Your task to perform on an android device: Open CNN.com Image 0: 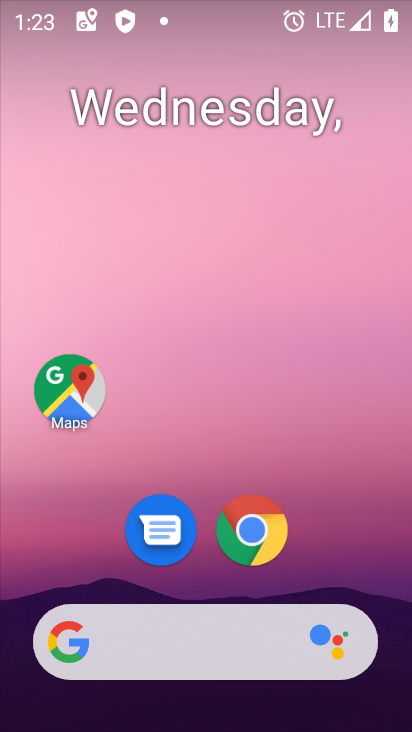
Step 0: drag from (339, 480) to (339, 146)
Your task to perform on an android device: Open CNN.com Image 1: 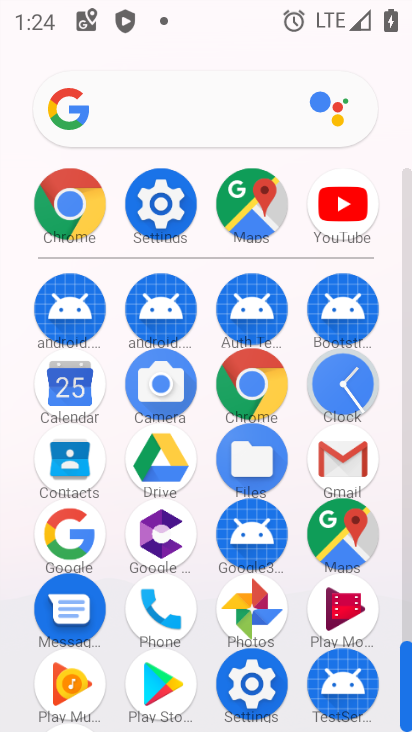
Step 1: click (73, 210)
Your task to perform on an android device: Open CNN.com Image 2: 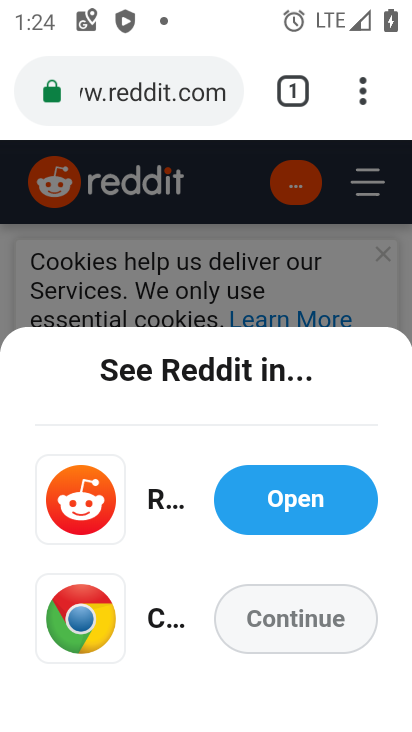
Step 2: click (172, 99)
Your task to perform on an android device: Open CNN.com Image 3: 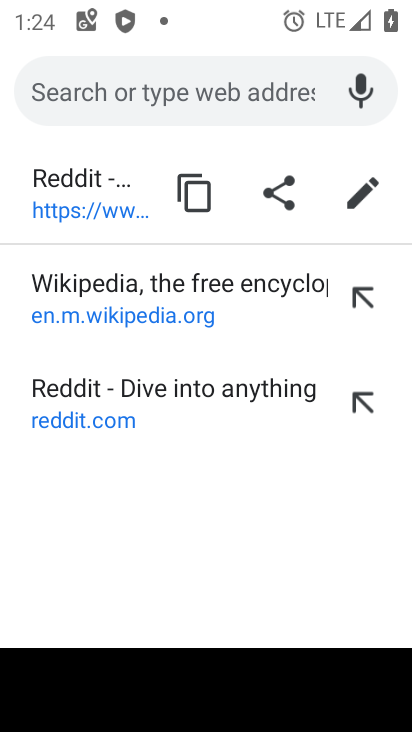
Step 3: type "cnn.com"
Your task to perform on an android device: Open CNN.com Image 4: 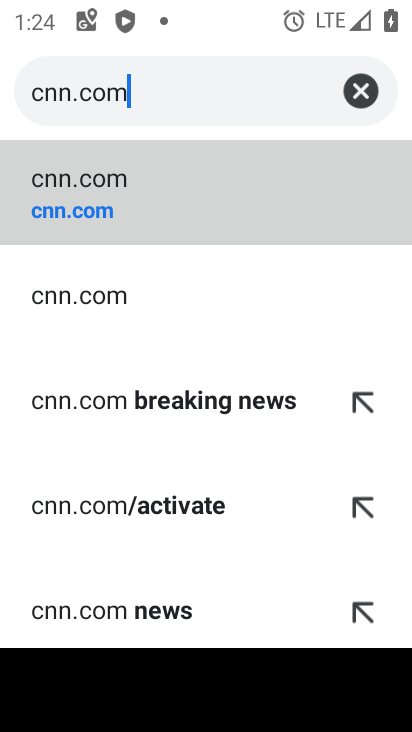
Step 4: click (165, 181)
Your task to perform on an android device: Open CNN.com Image 5: 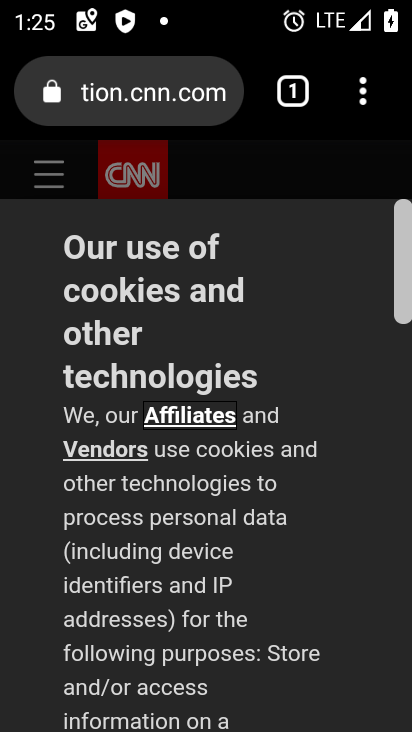
Step 5: task complete